Your task to perform on an android device: Open Maps and search for coffee Image 0: 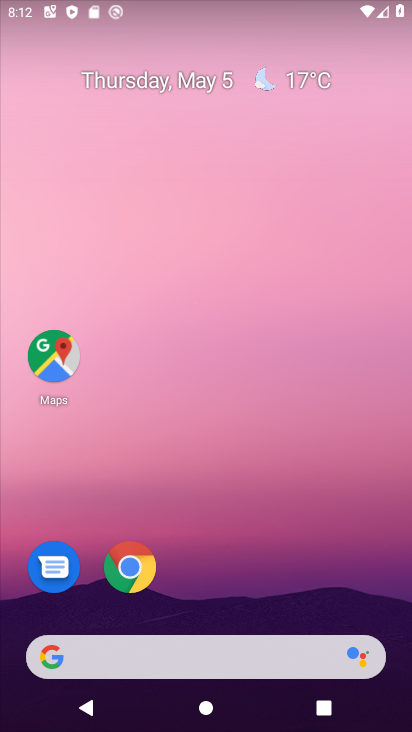
Step 0: drag from (244, 552) to (226, 25)
Your task to perform on an android device: Open Maps and search for coffee Image 1: 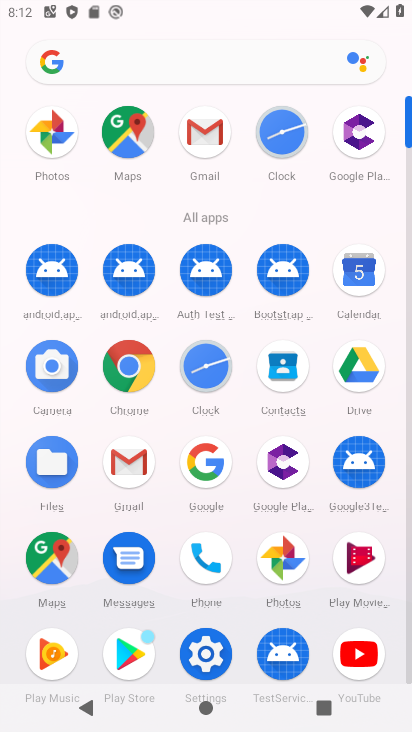
Step 1: click (131, 144)
Your task to perform on an android device: Open Maps and search for coffee Image 2: 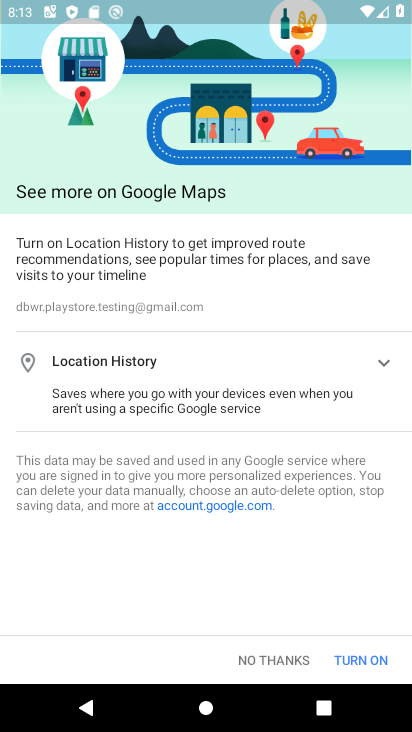
Step 2: press back button
Your task to perform on an android device: Open Maps and search for coffee Image 3: 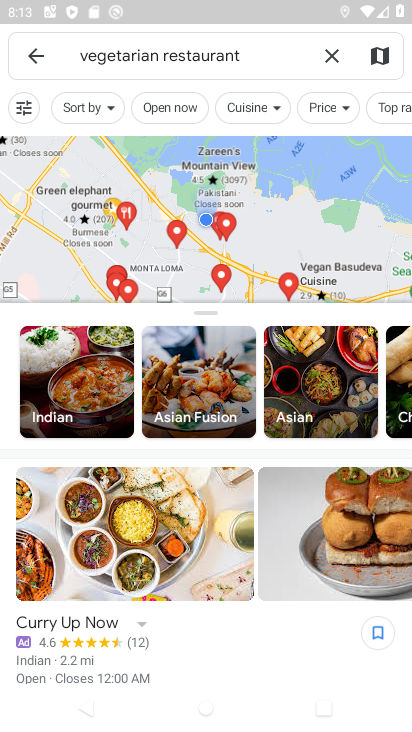
Step 3: click (331, 51)
Your task to perform on an android device: Open Maps and search for coffee Image 4: 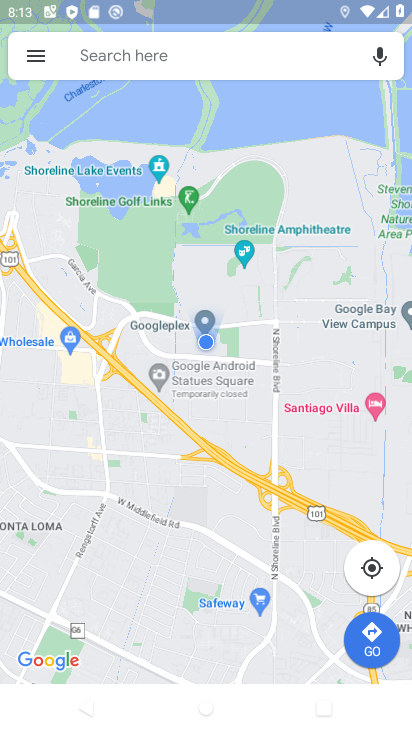
Step 4: click (279, 62)
Your task to perform on an android device: Open Maps and search for coffee Image 5: 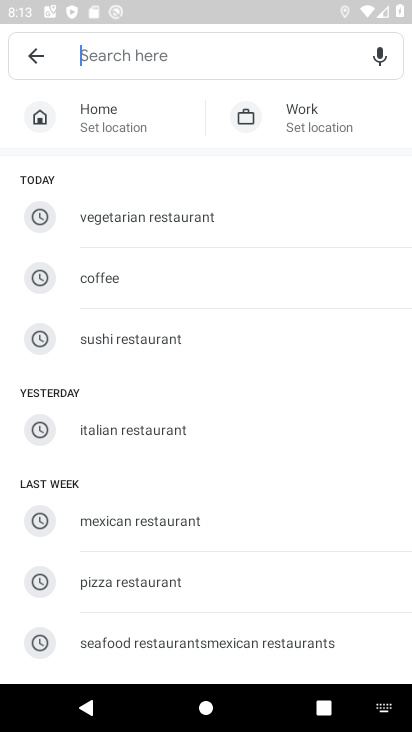
Step 5: click (106, 268)
Your task to perform on an android device: Open Maps and search for coffee Image 6: 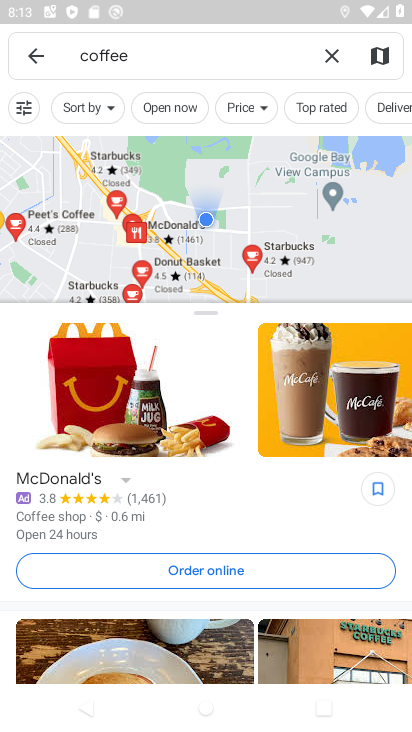
Step 6: task complete